Your task to perform on an android device: Install the Google app Image 0: 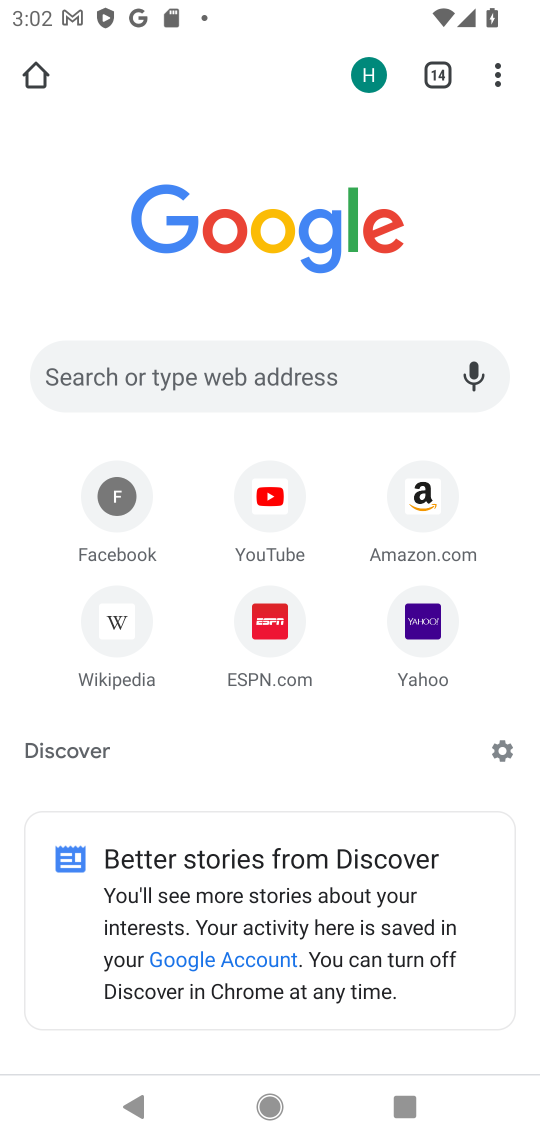
Step 0: press home button
Your task to perform on an android device: Install the Google app Image 1: 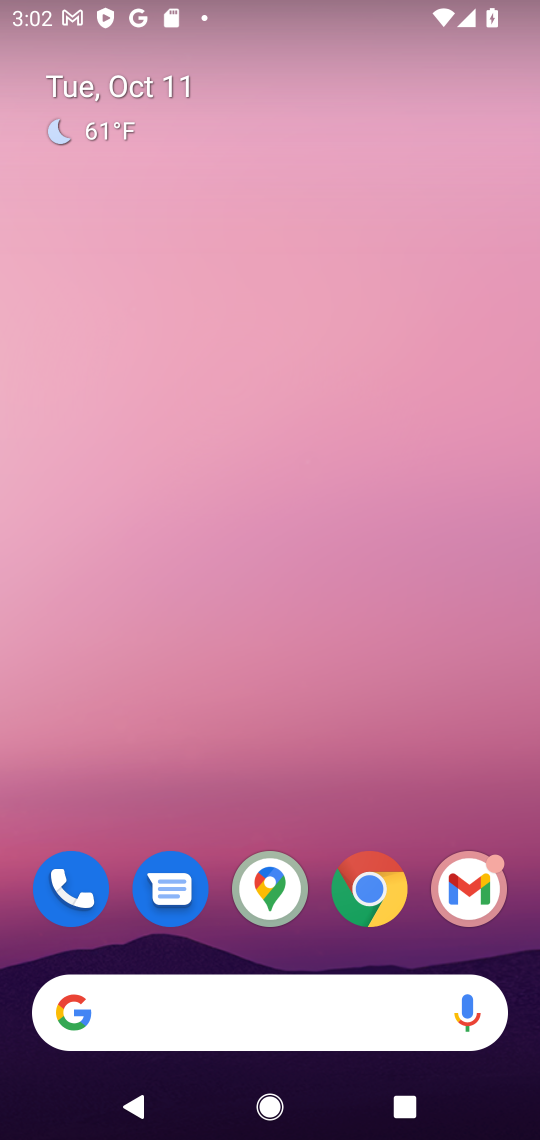
Step 1: drag from (326, 1037) to (341, 676)
Your task to perform on an android device: Install the Google app Image 2: 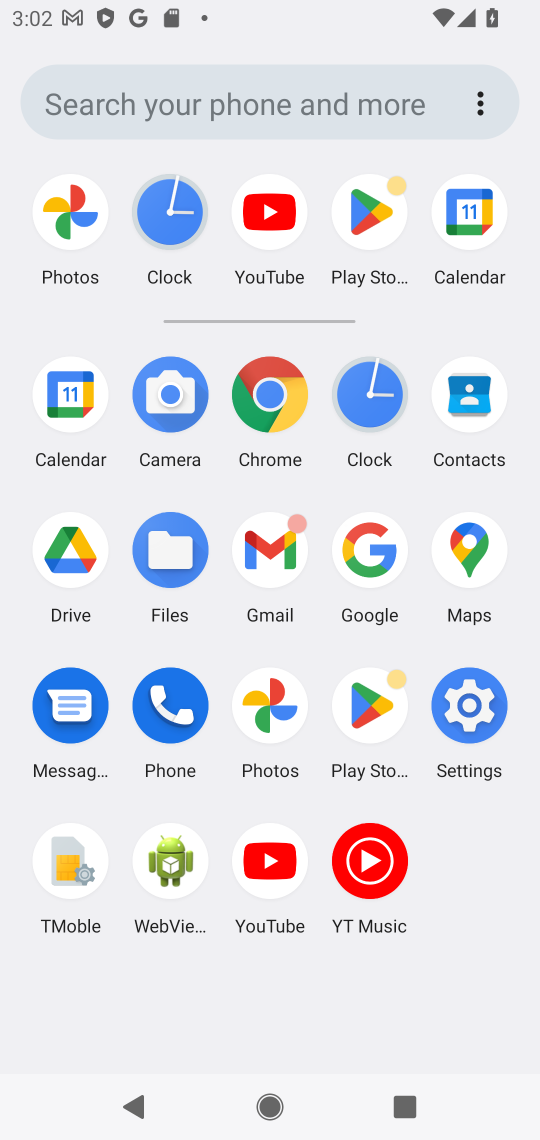
Step 2: click (349, 724)
Your task to perform on an android device: Install the Google app Image 3: 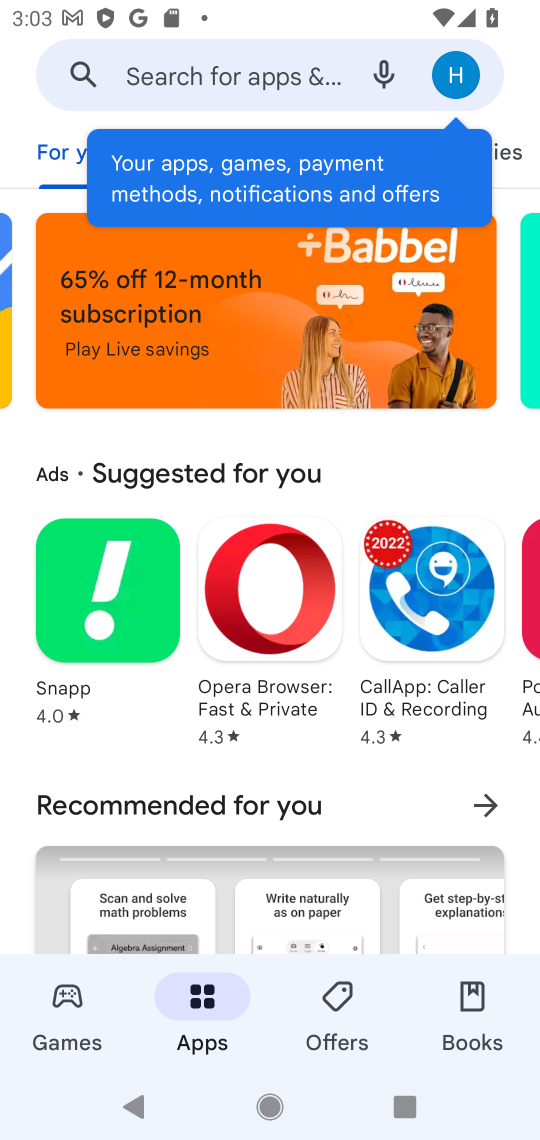
Step 3: click (279, 62)
Your task to perform on an android device: Install the Google app Image 4: 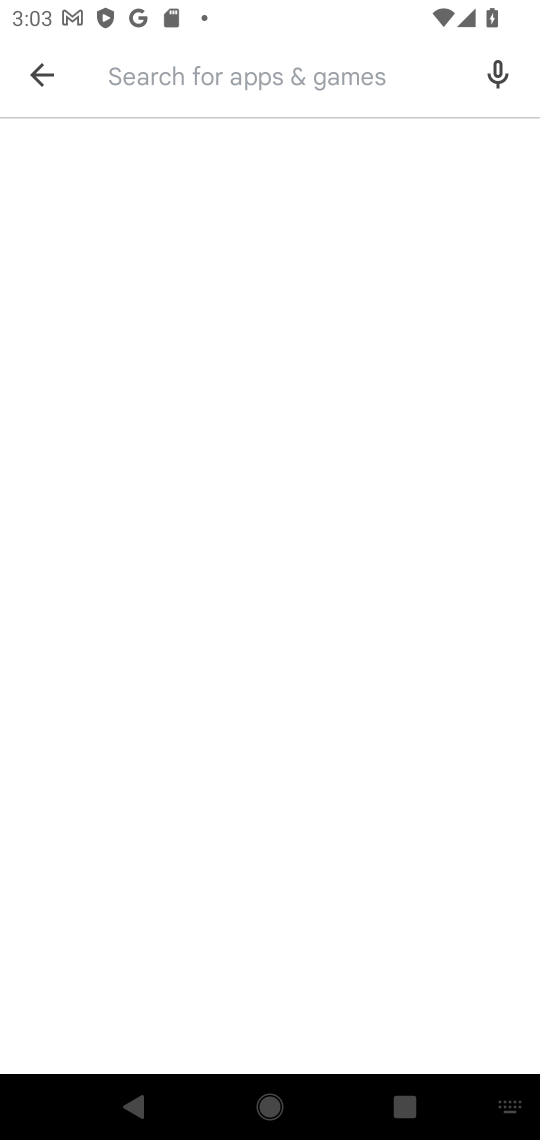
Step 4: type "Google app "
Your task to perform on an android device: Install the Google app Image 5: 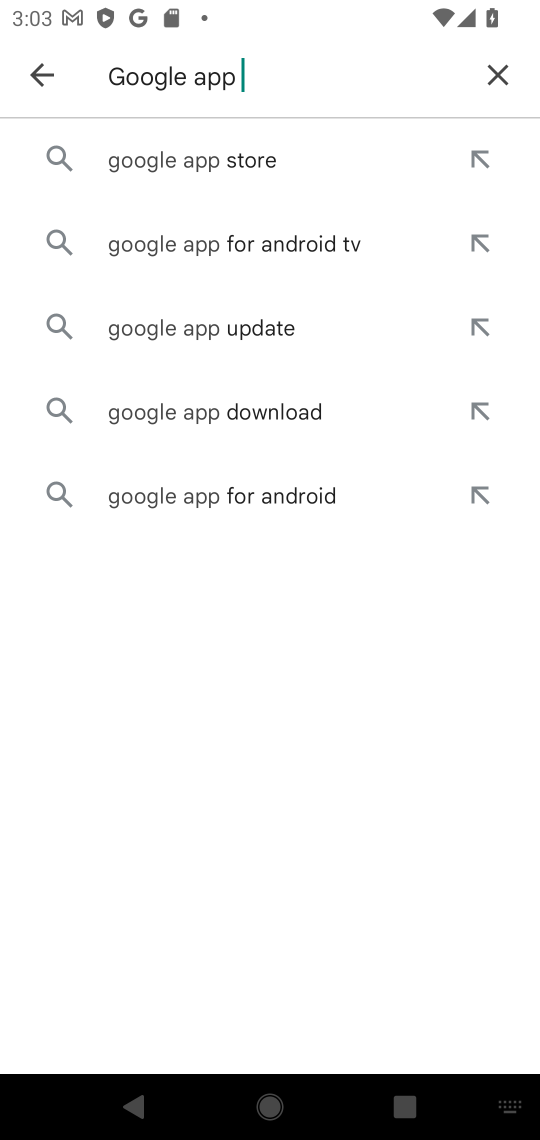
Step 5: click (250, 164)
Your task to perform on an android device: Install the Google app Image 6: 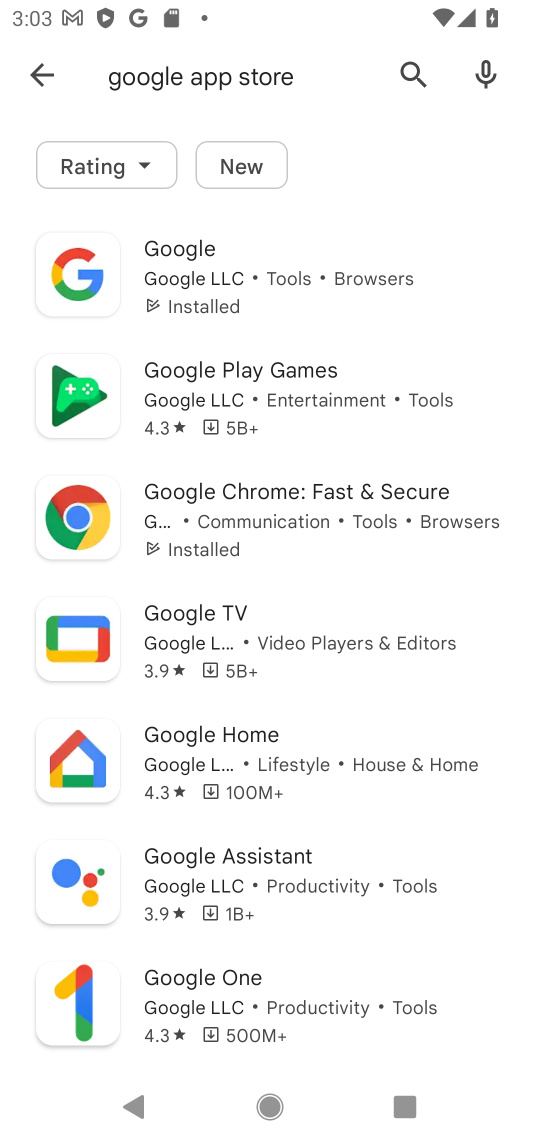
Step 6: click (175, 274)
Your task to perform on an android device: Install the Google app Image 7: 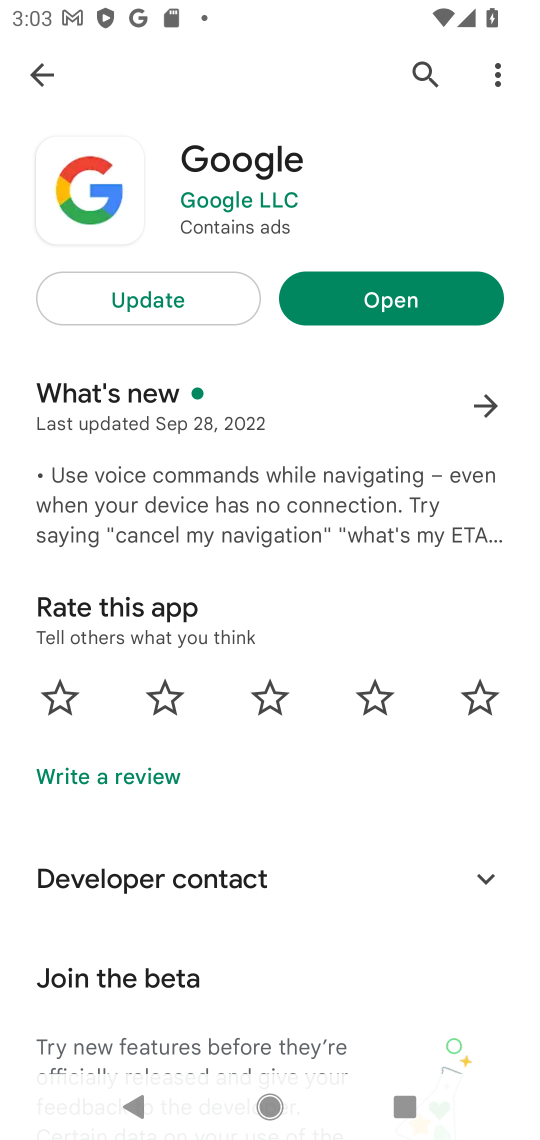
Step 7: click (364, 317)
Your task to perform on an android device: Install the Google app Image 8: 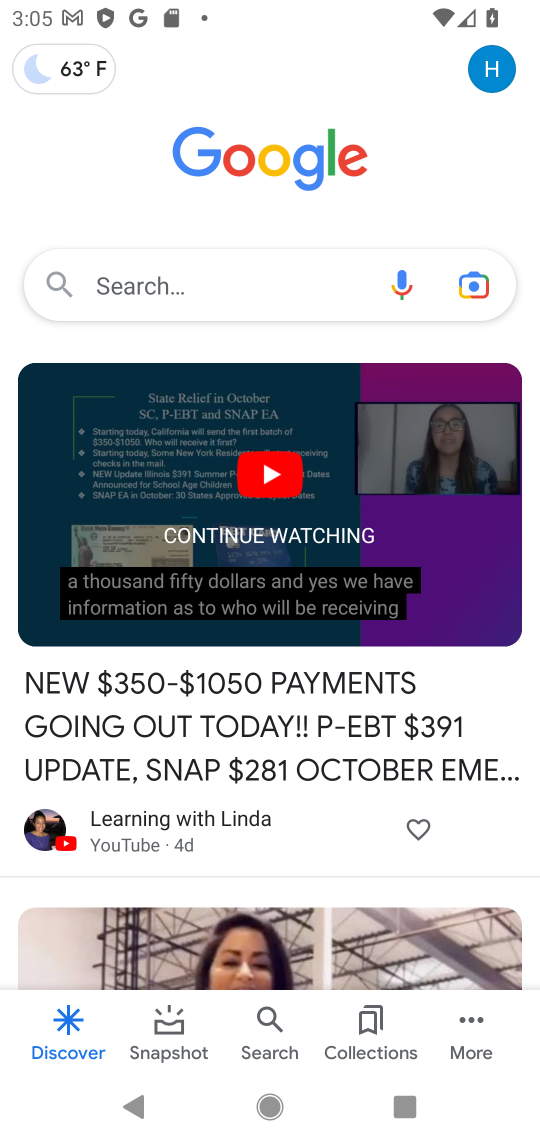
Step 8: task complete